Your task to perform on an android device: Check the weather Image 0: 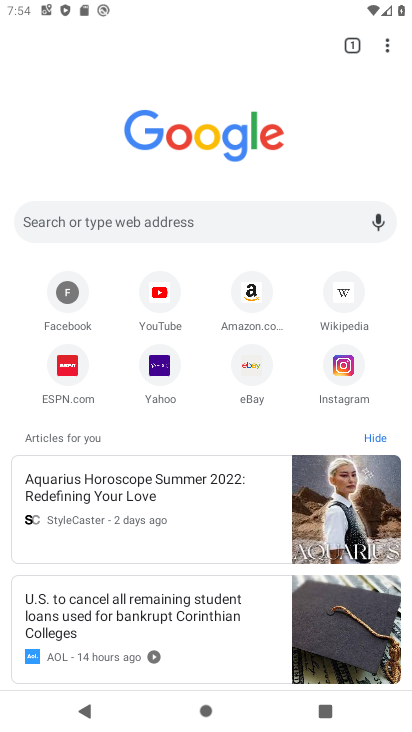
Step 0: press home button
Your task to perform on an android device: Check the weather Image 1: 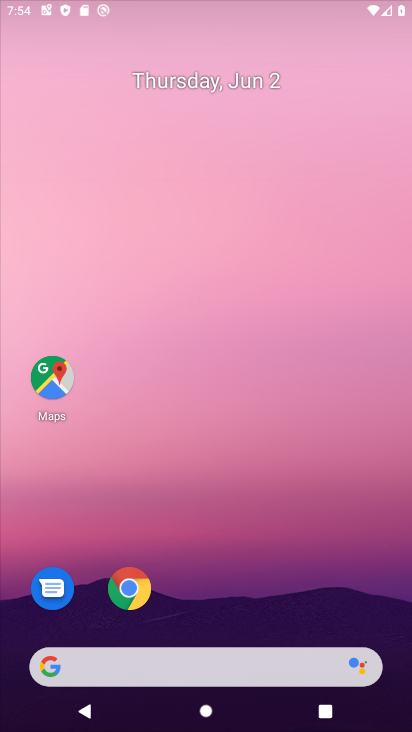
Step 1: drag from (224, 645) to (246, 125)
Your task to perform on an android device: Check the weather Image 2: 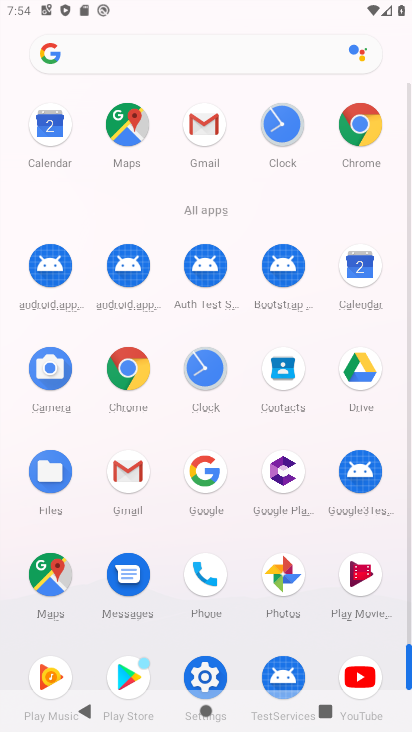
Step 2: click (216, 483)
Your task to perform on an android device: Check the weather Image 3: 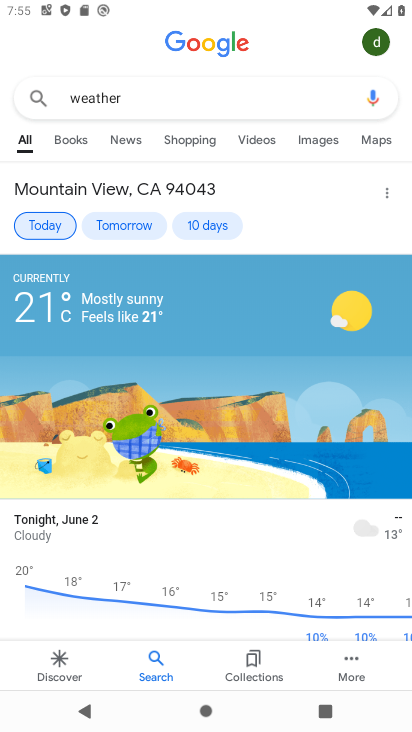
Step 3: task complete